Your task to perform on an android device: toggle pop-ups in chrome Image 0: 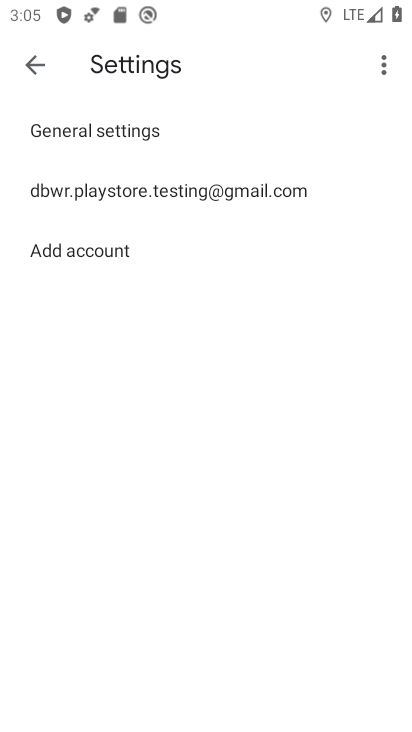
Step 0: press home button
Your task to perform on an android device: toggle pop-ups in chrome Image 1: 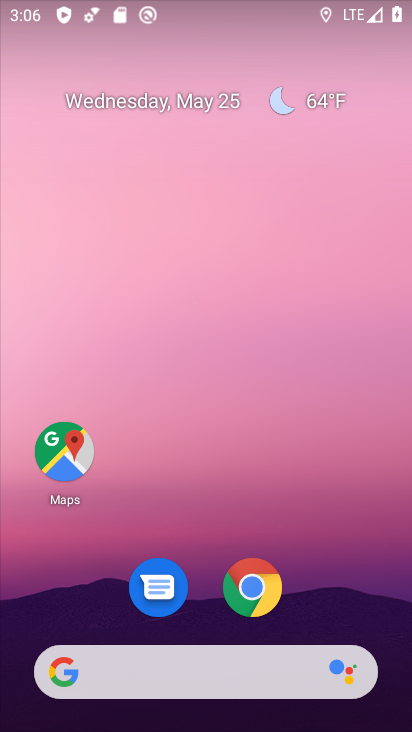
Step 1: click (277, 595)
Your task to perform on an android device: toggle pop-ups in chrome Image 2: 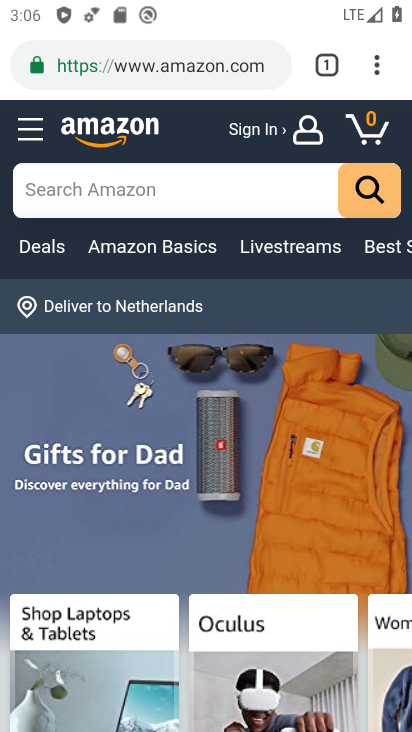
Step 2: click (382, 64)
Your task to perform on an android device: toggle pop-ups in chrome Image 3: 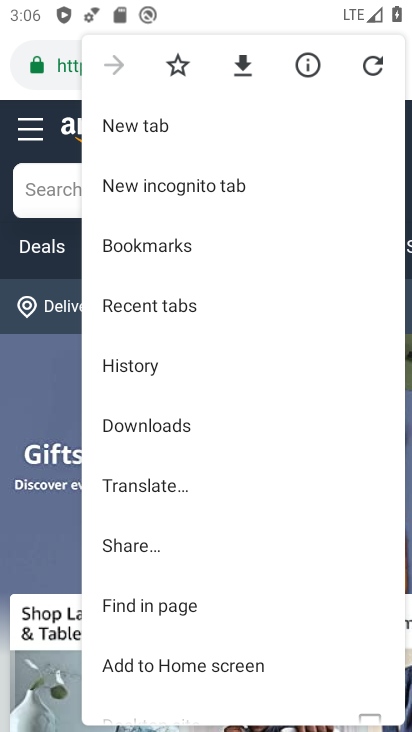
Step 3: drag from (229, 688) to (192, 231)
Your task to perform on an android device: toggle pop-ups in chrome Image 4: 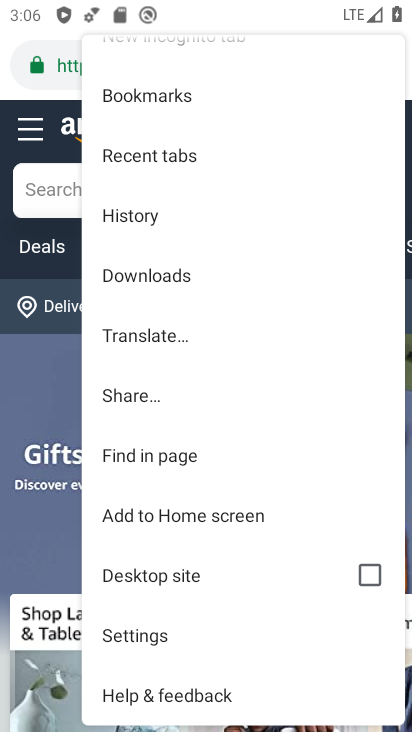
Step 4: click (177, 642)
Your task to perform on an android device: toggle pop-ups in chrome Image 5: 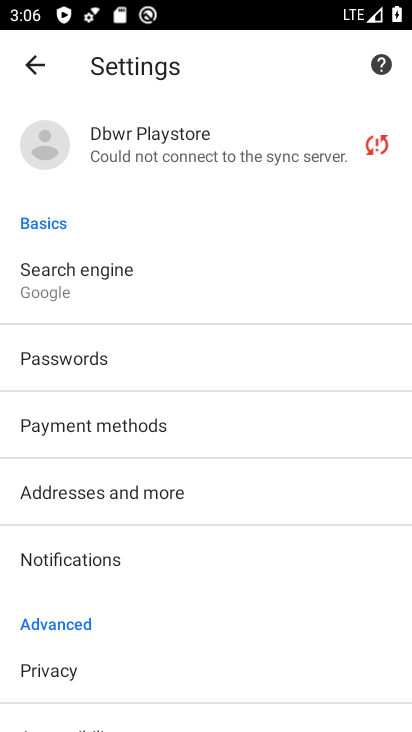
Step 5: drag from (162, 674) to (139, 268)
Your task to perform on an android device: toggle pop-ups in chrome Image 6: 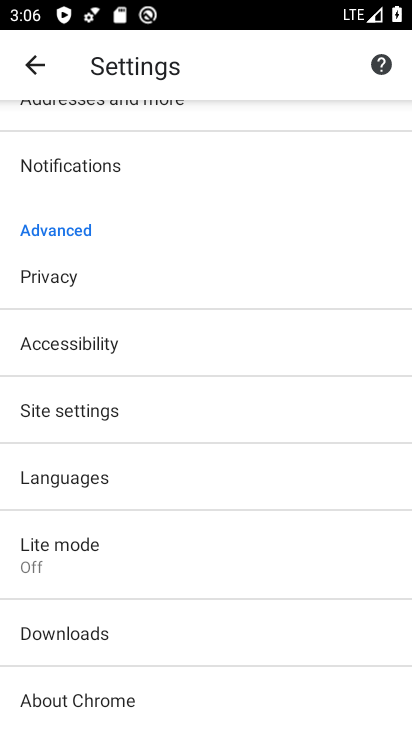
Step 6: click (121, 420)
Your task to perform on an android device: toggle pop-ups in chrome Image 7: 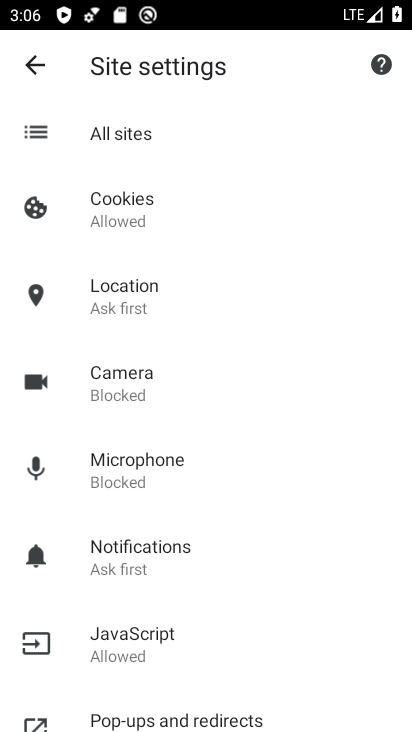
Step 7: drag from (184, 664) to (189, 331)
Your task to perform on an android device: toggle pop-ups in chrome Image 8: 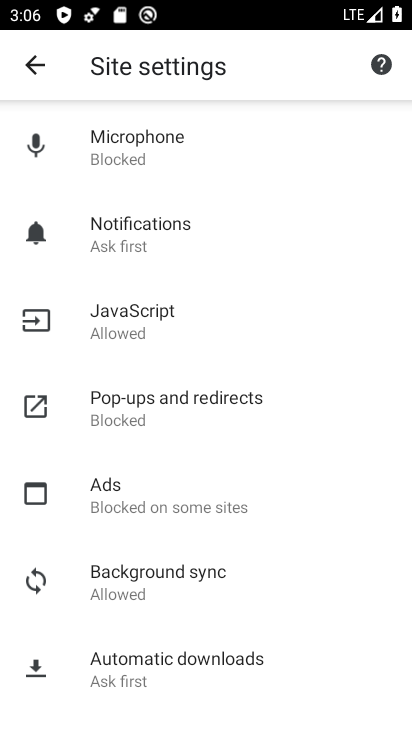
Step 8: click (179, 420)
Your task to perform on an android device: toggle pop-ups in chrome Image 9: 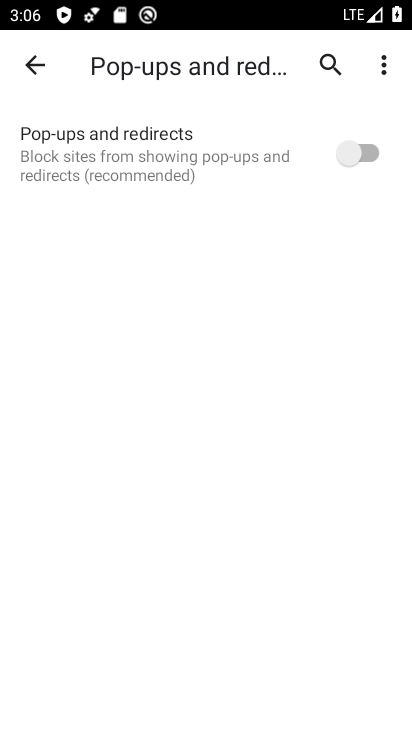
Step 9: click (373, 159)
Your task to perform on an android device: toggle pop-ups in chrome Image 10: 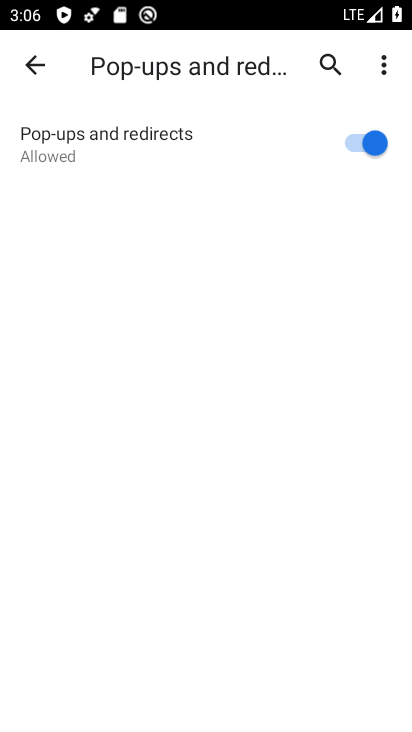
Step 10: task complete